Your task to perform on an android device: empty trash in the gmail app Image 0: 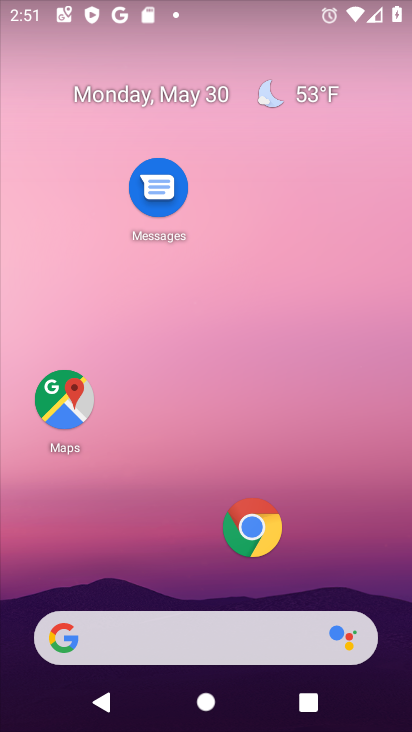
Step 0: drag from (182, 548) to (239, 122)
Your task to perform on an android device: empty trash in the gmail app Image 1: 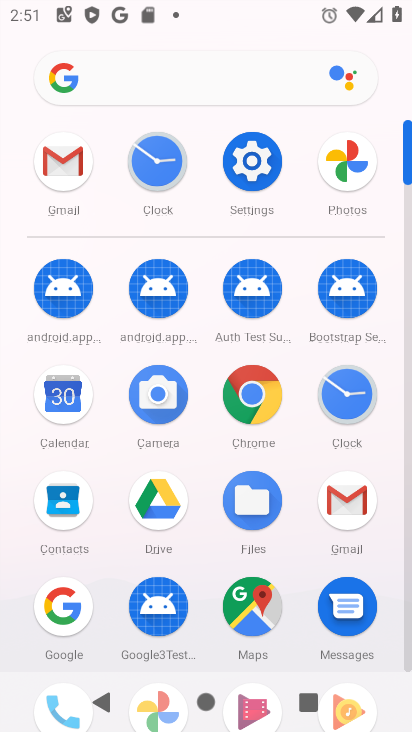
Step 1: click (367, 489)
Your task to perform on an android device: empty trash in the gmail app Image 2: 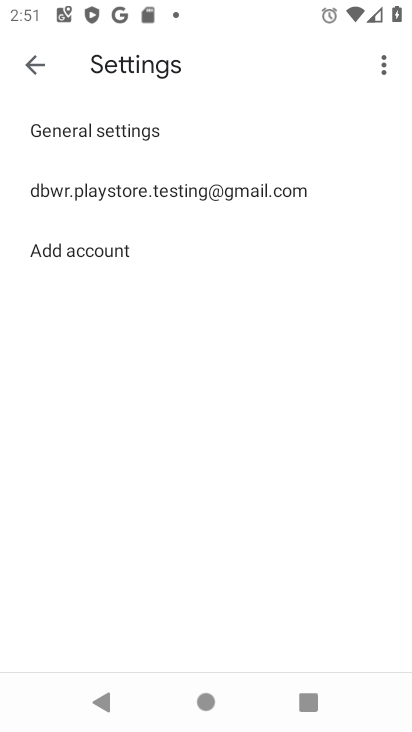
Step 2: press back button
Your task to perform on an android device: empty trash in the gmail app Image 3: 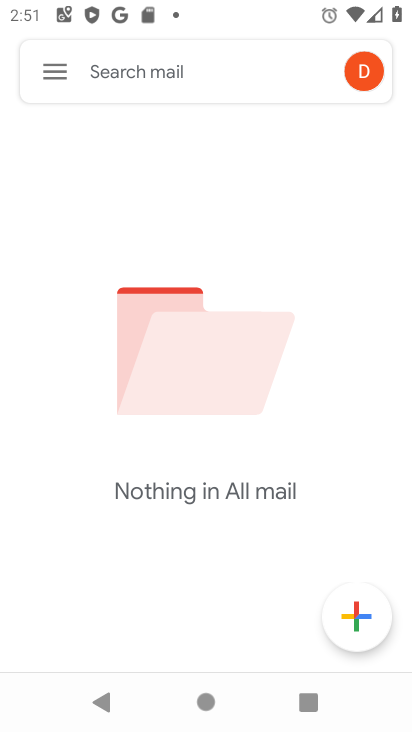
Step 3: click (64, 82)
Your task to perform on an android device: empty trash in the gmail app Image 4: 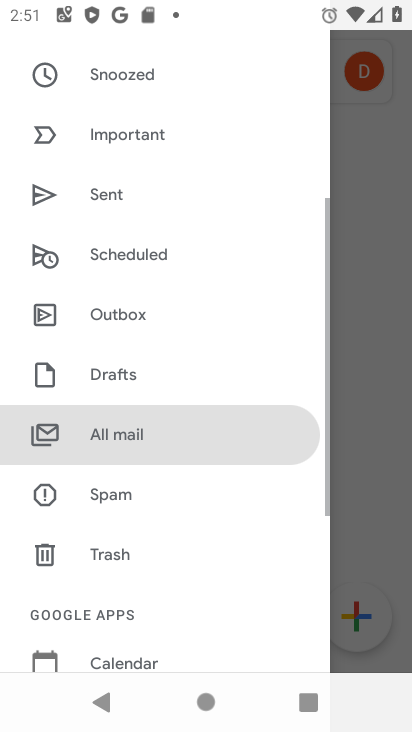
Step 4: click (100, 545)
Your task to perform on an android device: empty trash in the gmail app Image 5: 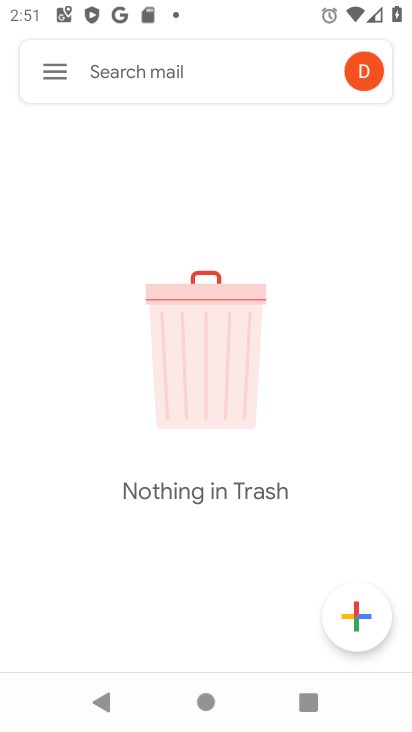
Step 5: task complete